Your task to perform on an android device: turn off location Image 0: 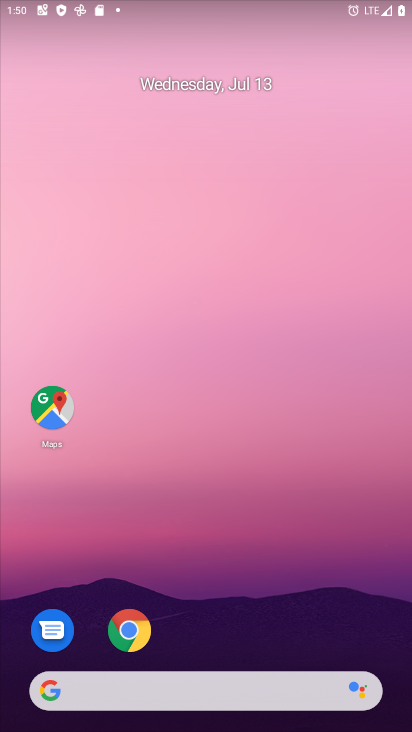
Step 0: drag from (409, 646) to (301, 51)
Your task to perform on an android device: turn off location Image 1: 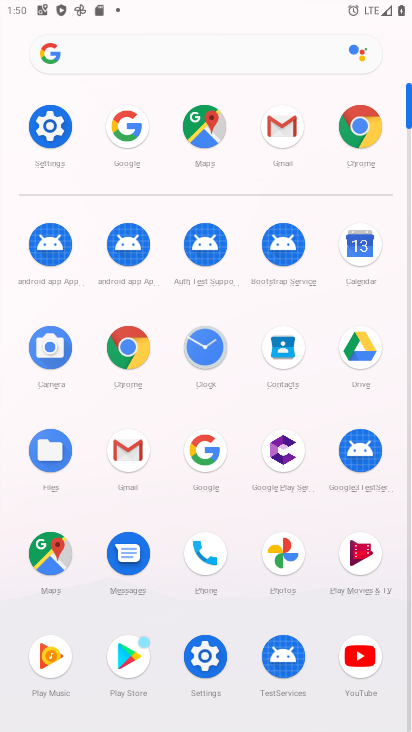
Step 1: click (216, 666)
Your task to perform on an android device: turn off location Image 2: 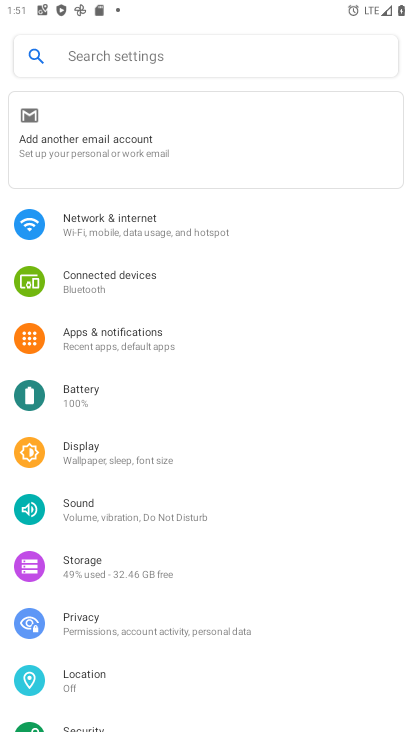
Step 2: click (101, 685)
Your task to perform on an android device: turn off location Image 3: 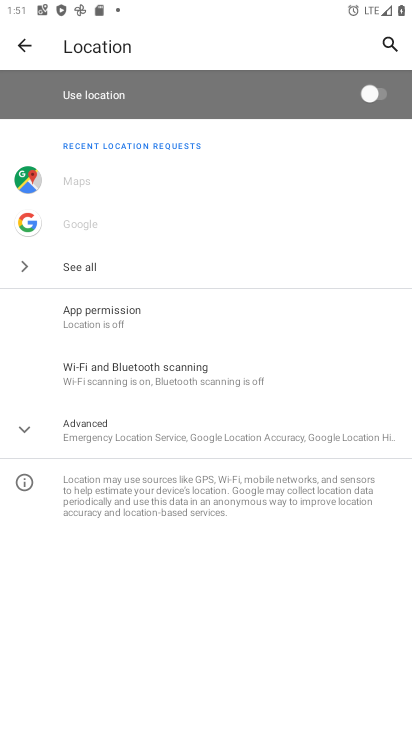
Step 3: task complete